Your task to perform on an android device: open wifi settings Image 0: 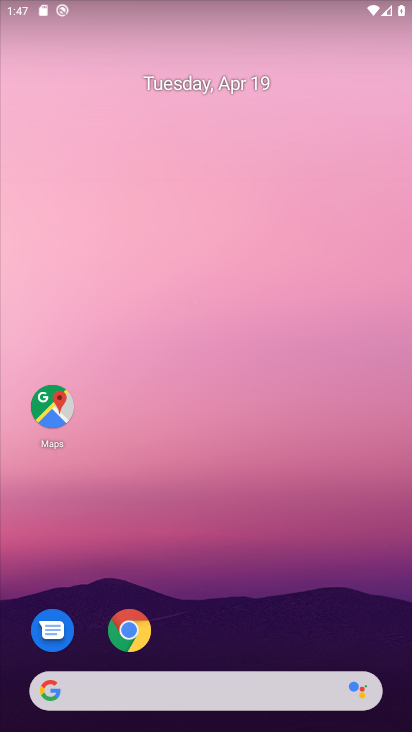
Step 0: drag from (210, 630) to (305, 36)
Your task to perform on an android device: open wifi settings Image 1: 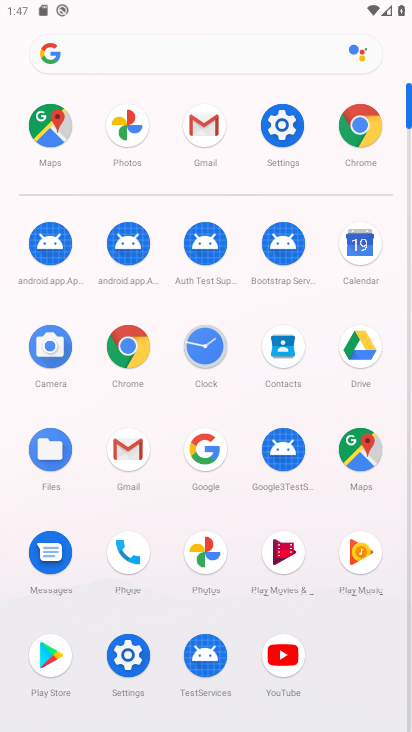
Step 1: click (296, 120)
Your task to perform on an android device: open wifi settings Image 2: 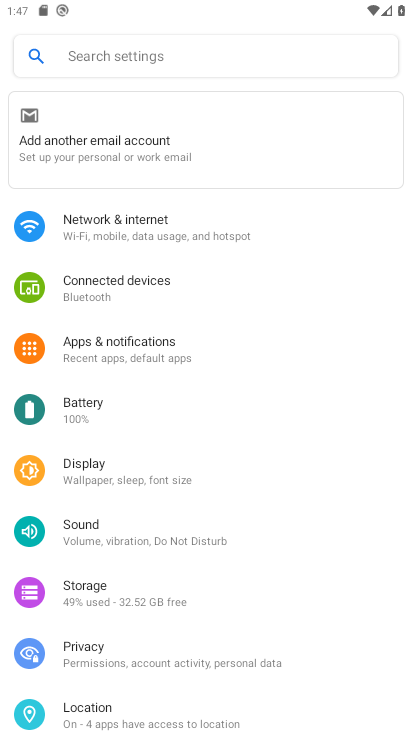
Step 2: click (260, 226)
Your task to perform on an android device: open wifi settings Image 3: 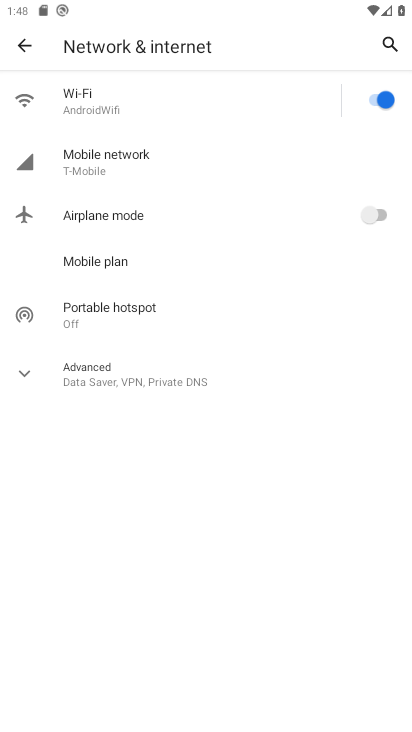
Step 3: click (179, 90)
Your task to perform on an android device: open wifi settings Image 4: 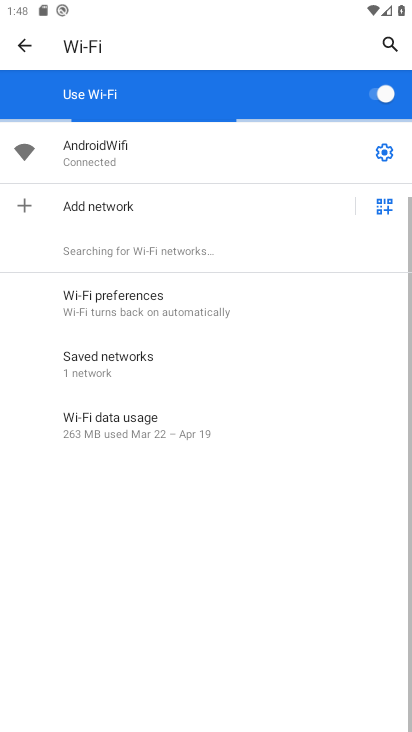
Step 4: click (379, 150)
Your task to perform on an android device: open wifi settings Image 5: 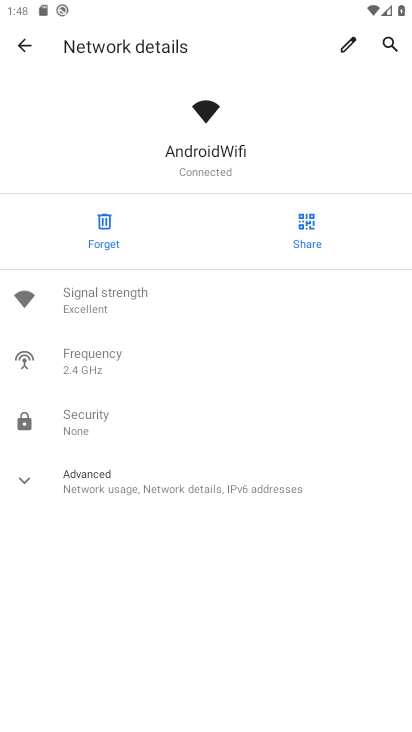
Step 5: task complete